Your task to perform on an android device: allow cookies in the chrome app Image 0: 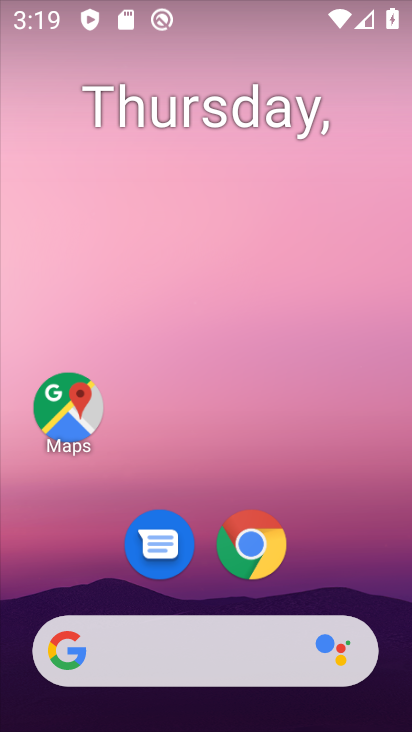
Step 0: click (255, 562)
Your task to perform on an android device: allow cookies in the chrome app Image 1: 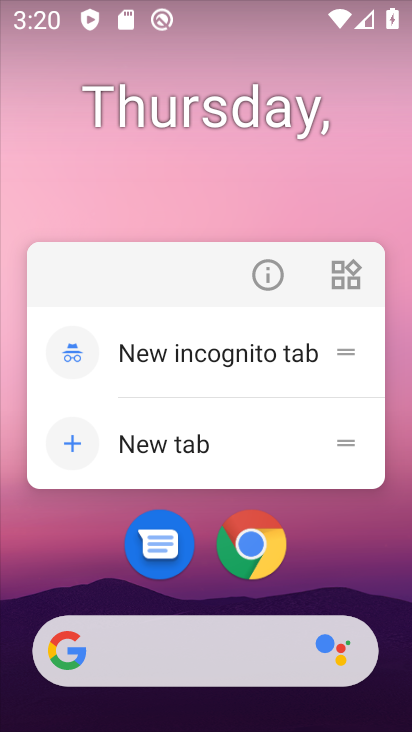
Step 1: click (255, 562)
Your task to perform on an android device: allow cookies in the chrome app Image 2: 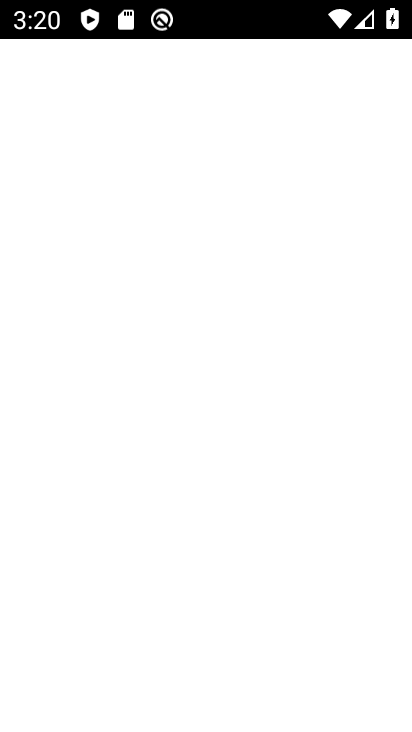
Step 2: click (256, 561)
Your task to perform on an android device: allow cookies in the chrome app Image 3: 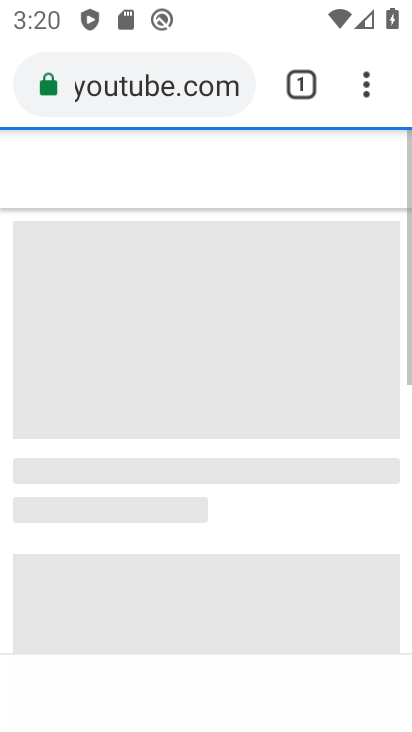
Step 3: click (377, 105)
Your task to perform on an android device: allow cookies in the chrome app Image 4: 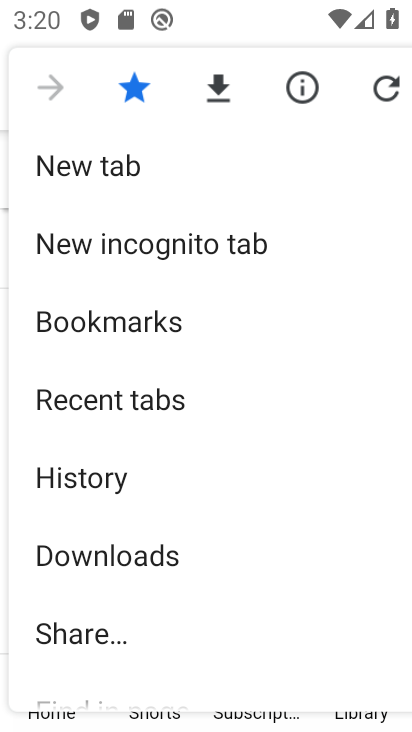
Step 4: drag from (138, 599) to (156, 153)
Your task to perform on an android device: allow cookies in the chrome app Image 5: 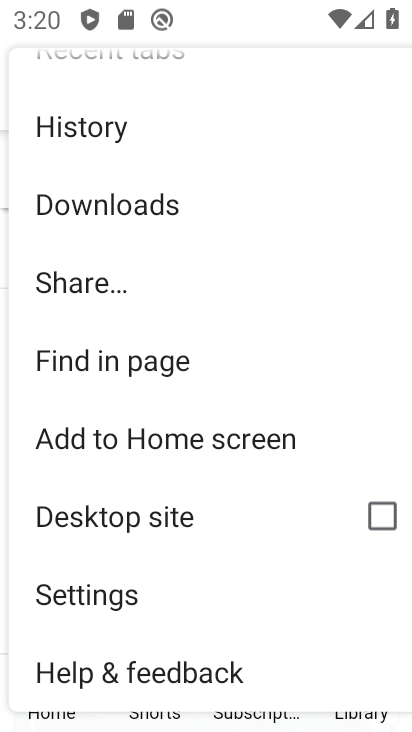
Step 5: click (129, 610)
Your task to perform on an android device: allow cookies in the chrome app Image 6: 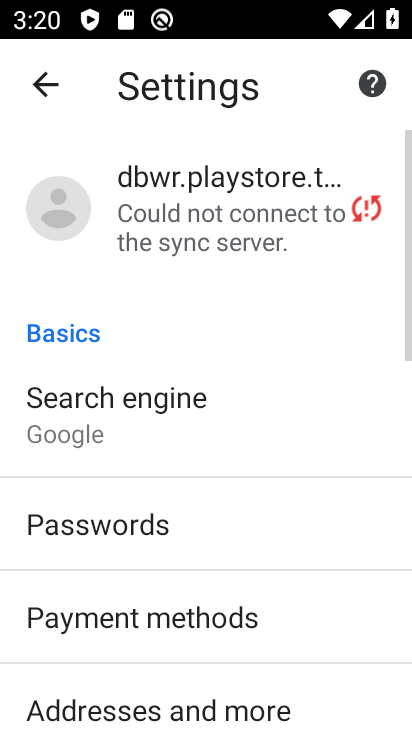
Step 6: drag from (228, 587) to (230, 73)
Your task to perform on an android device: allow cookies in the chrome app Image 7: 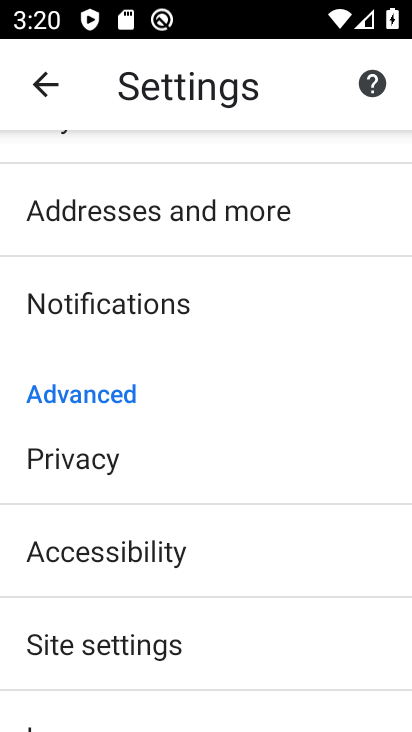
Step 7: drag from (204, 446) to (214, 120)
Your task to perform on an android device: allow cookies in the chrome app Image 8: 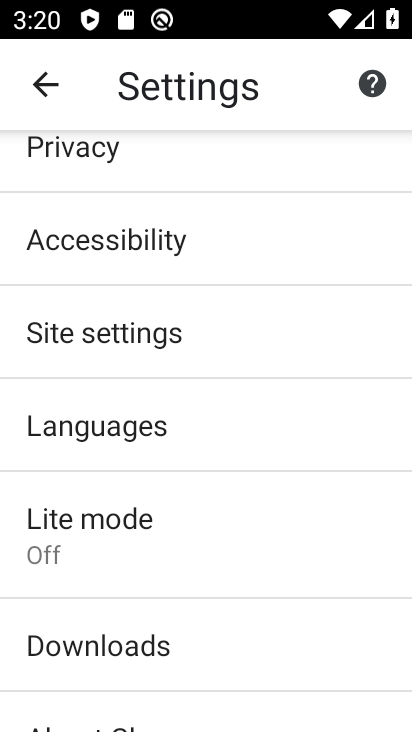
Step 8: drag from (115, 648) to (125, 112)
Your task to perform on an android device: allow cookies in the chrome app Image 9: 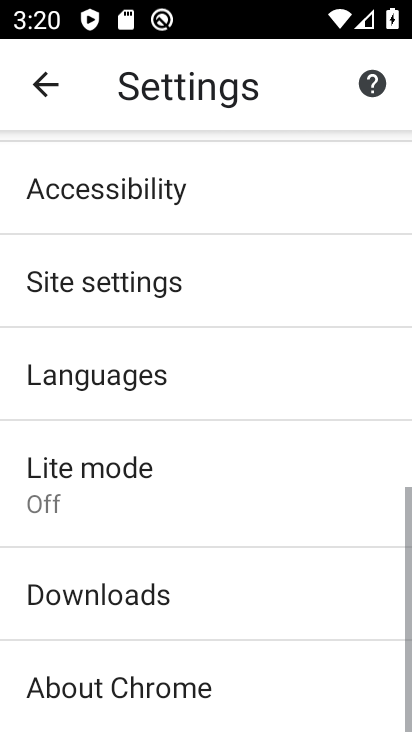
Step 9: drag from (131, 377) to (188, 689)
Your task to perform on an android device: allow cookies in the chrome app Image 10: 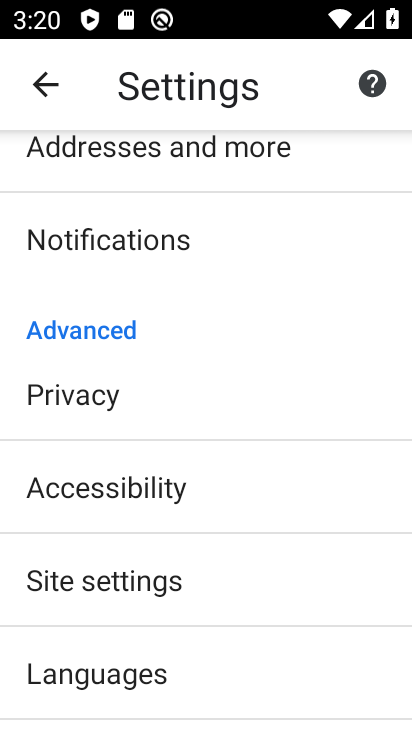
Step 10: click (134, 583)
Your task to perform on an android device: allow cookies in the chrome app Image 11: 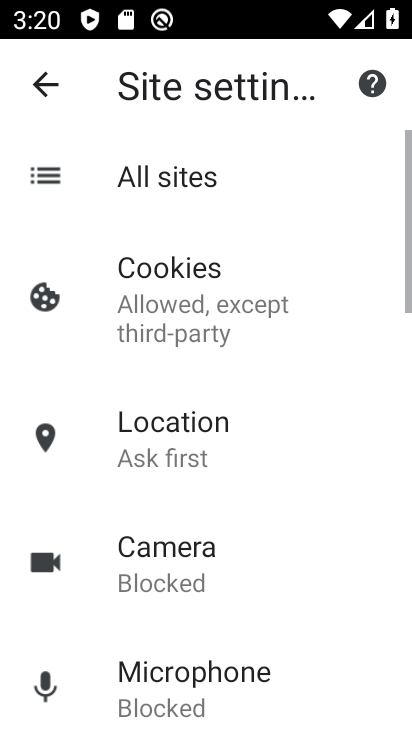
Step 11: click (161, 303)
Your task to perform on an android device: allow cookies in the chrome app Image 12: 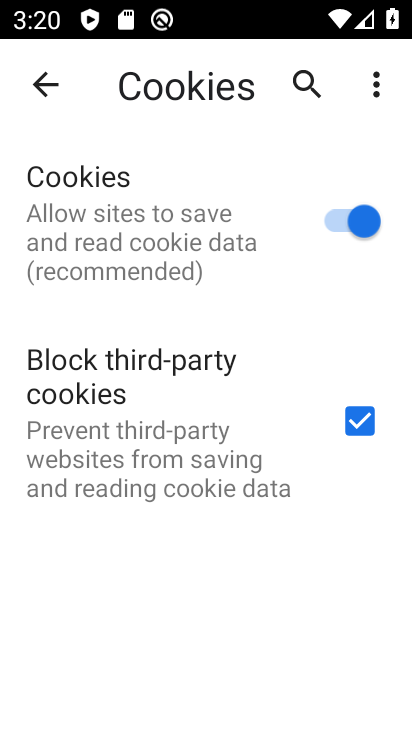
Step 12: task complete